Your task to perform on an android device: Open Amazon Image 0: 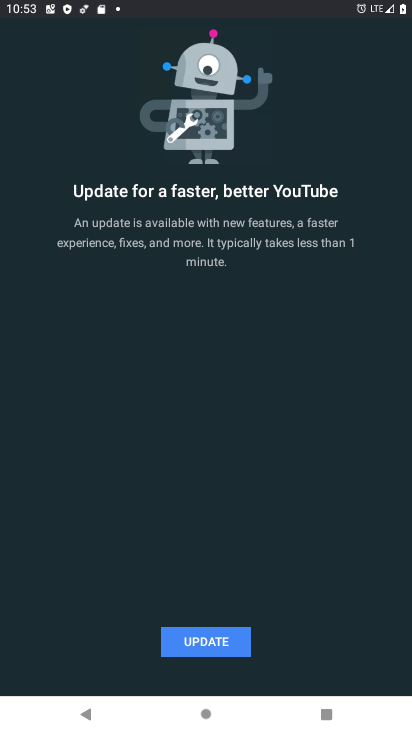
Step 0: press home button
Your task to perform on an android device: Open Amazon Image 1: 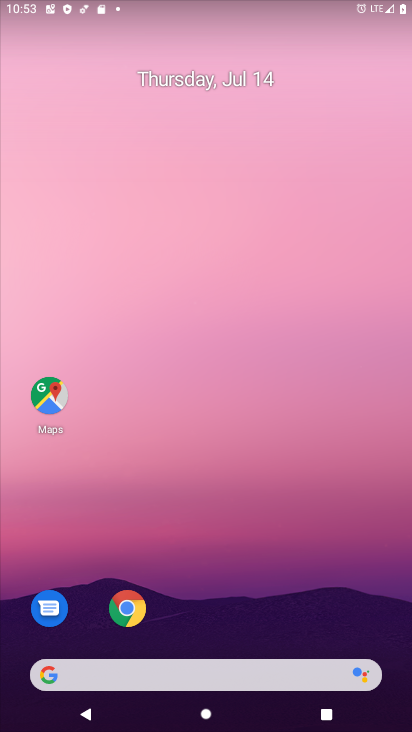
Step 1: click (250, 86)
Your task to perform on an android device: Open Amazon Image 2: 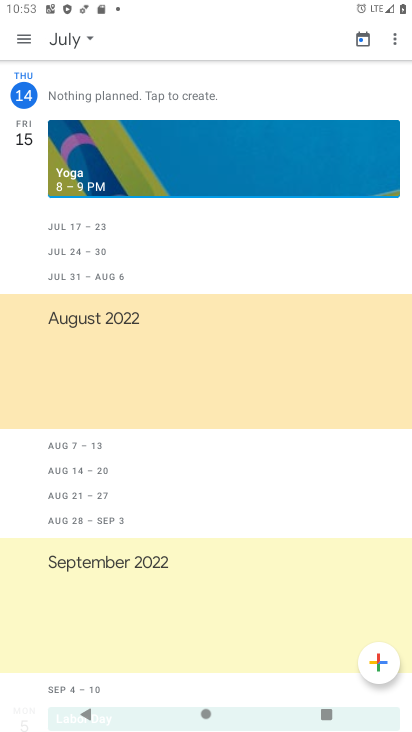
Step 2: press home button
Your task to perform on an android device: Open Amazon Image 3: 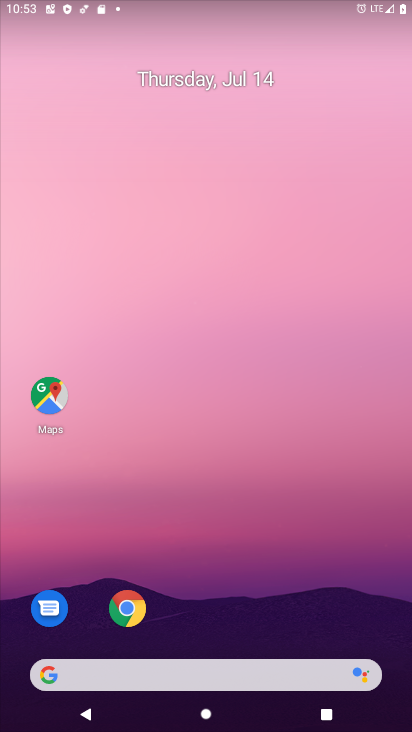
Step 3: click (126, 605)
Your task to perform on an android device: Open Amazon Image 4: 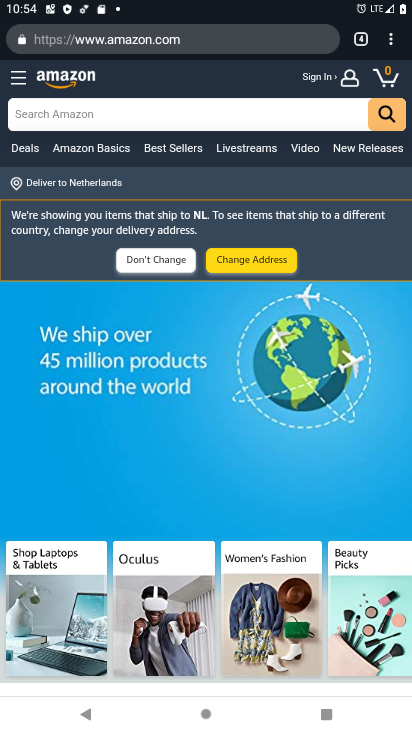
Step 4: task complete